Your task to perform on an android device: add a contact Image 0: 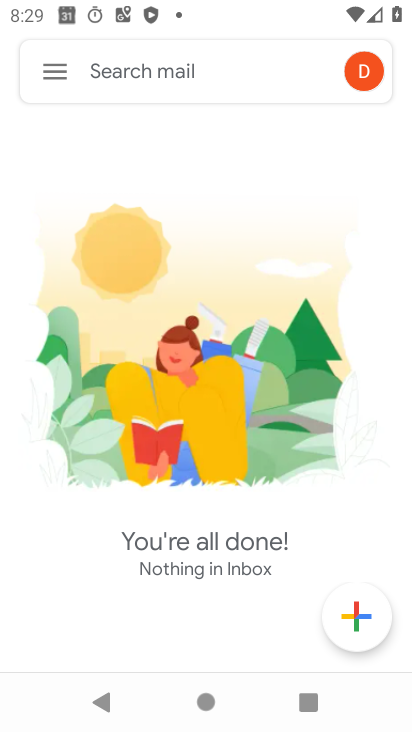
Step 0: press back button
Your task to perform on an android device: add a contact Image 1: 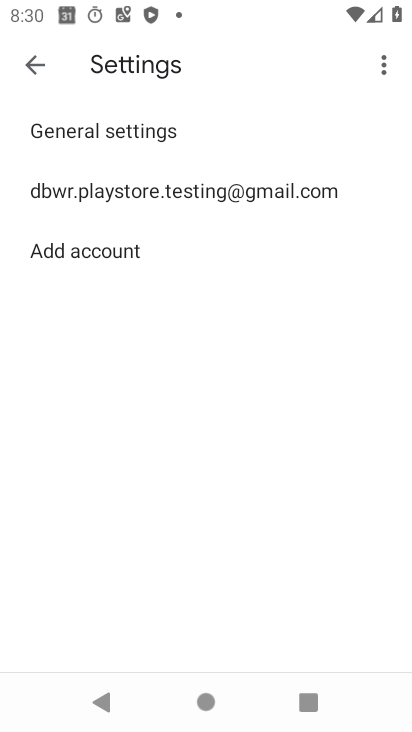
Step 1: press home button
Your task to perform on an android device: add a contact Image 2: 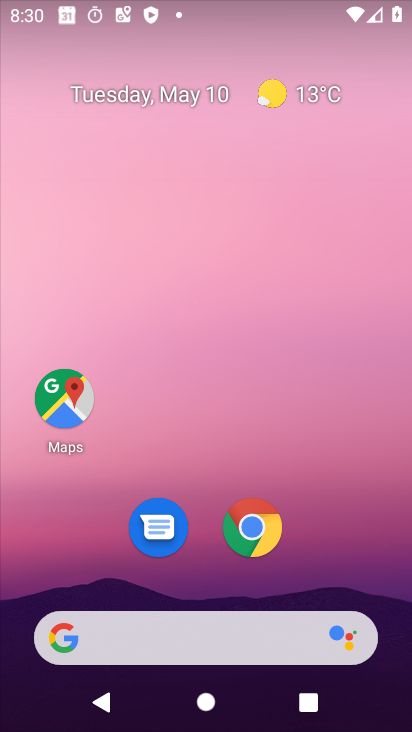
Step 2: drag from (39, 616) to (261, 108)
Your task to perform on an android device: add a contact Image 3: 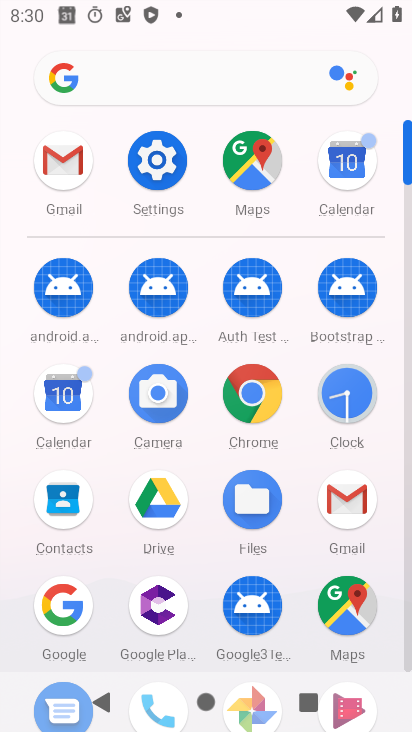
Step 3: drag from (16, 681) to (248, 125)
Your task to perform on an android device: add a contact Image 4: 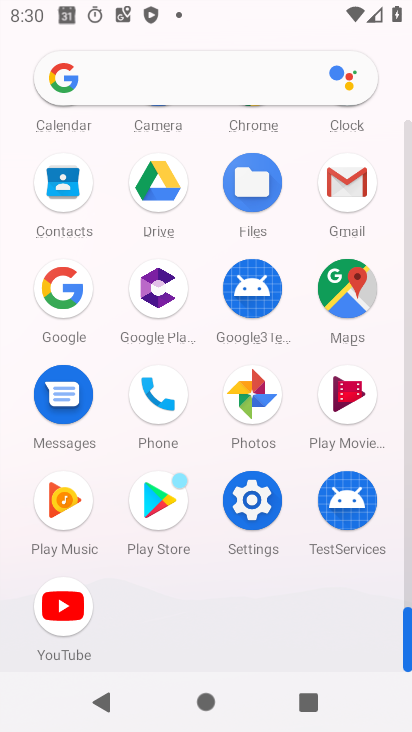
Step 4: click (165, 401)
Your task to perform on an android device: add a contact Image 5: 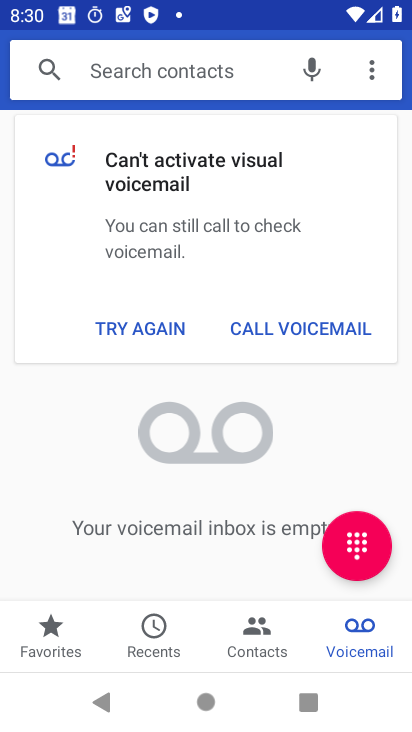
Step 5: click (257, 641)
Your task to perform on an android device: add a contact Image 6: 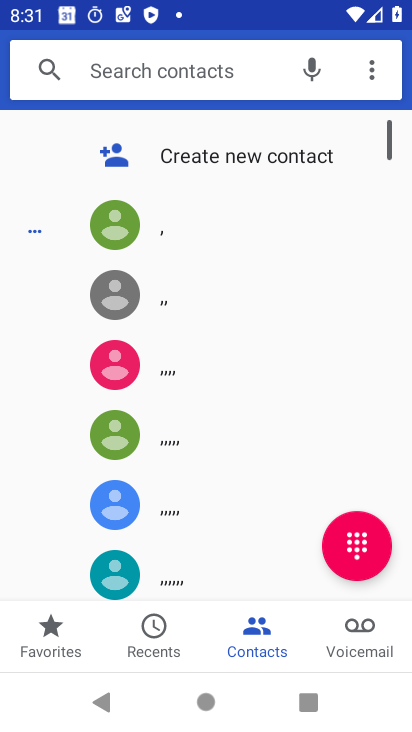
Step 6: task complete